Your task to perform on an android device: Check the weather Image 0: 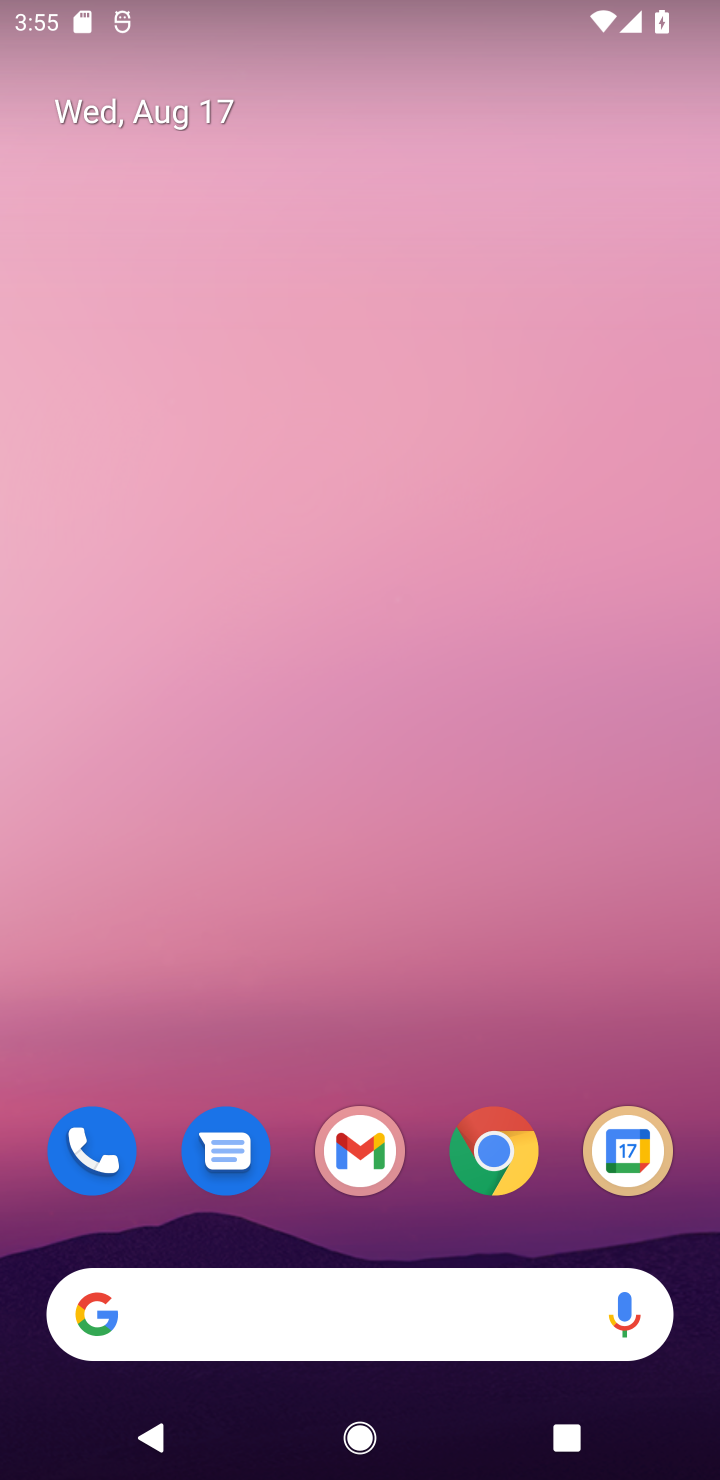
Step 0: click (391, 1337)
Your task to perform on an android device: Check the weather Image 1: 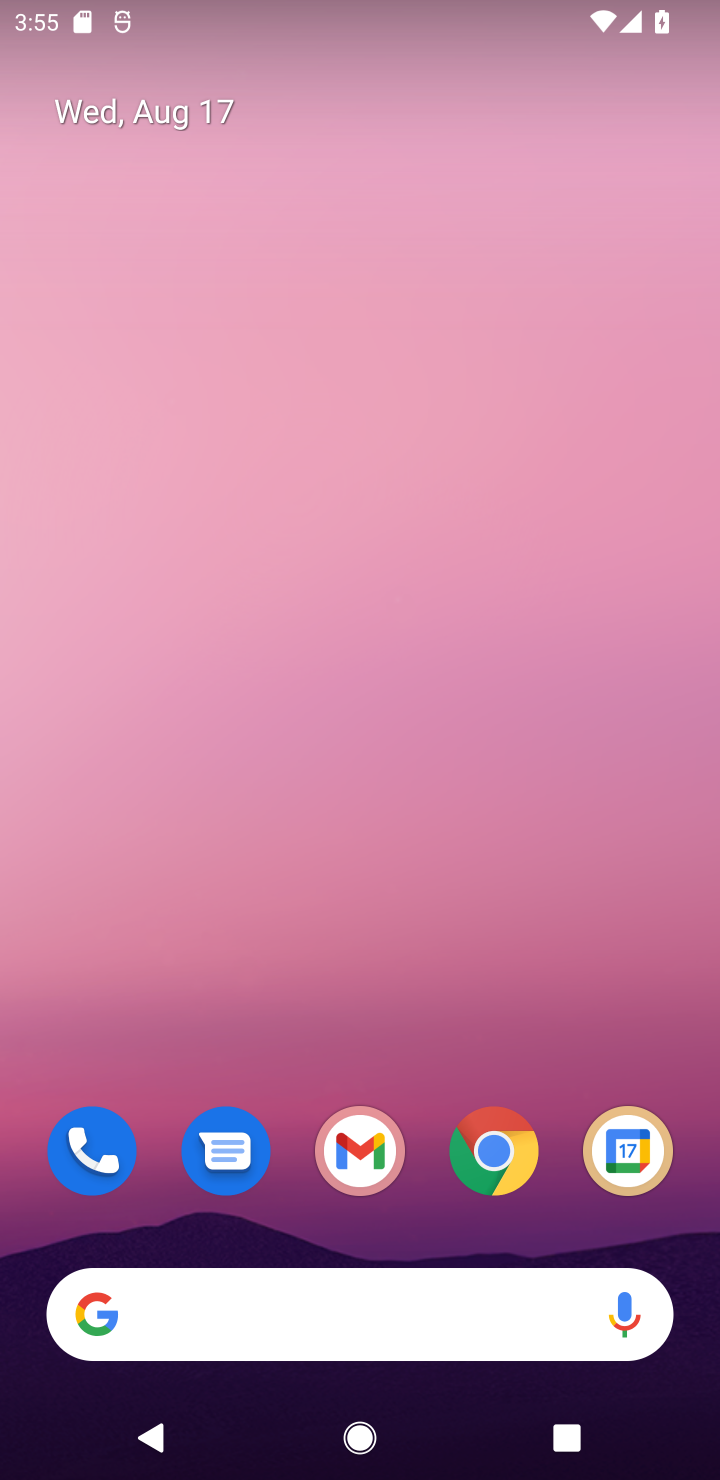
Step 1: click (302, 1323)
Your task to perform on an android device: Check the weather Image 2: 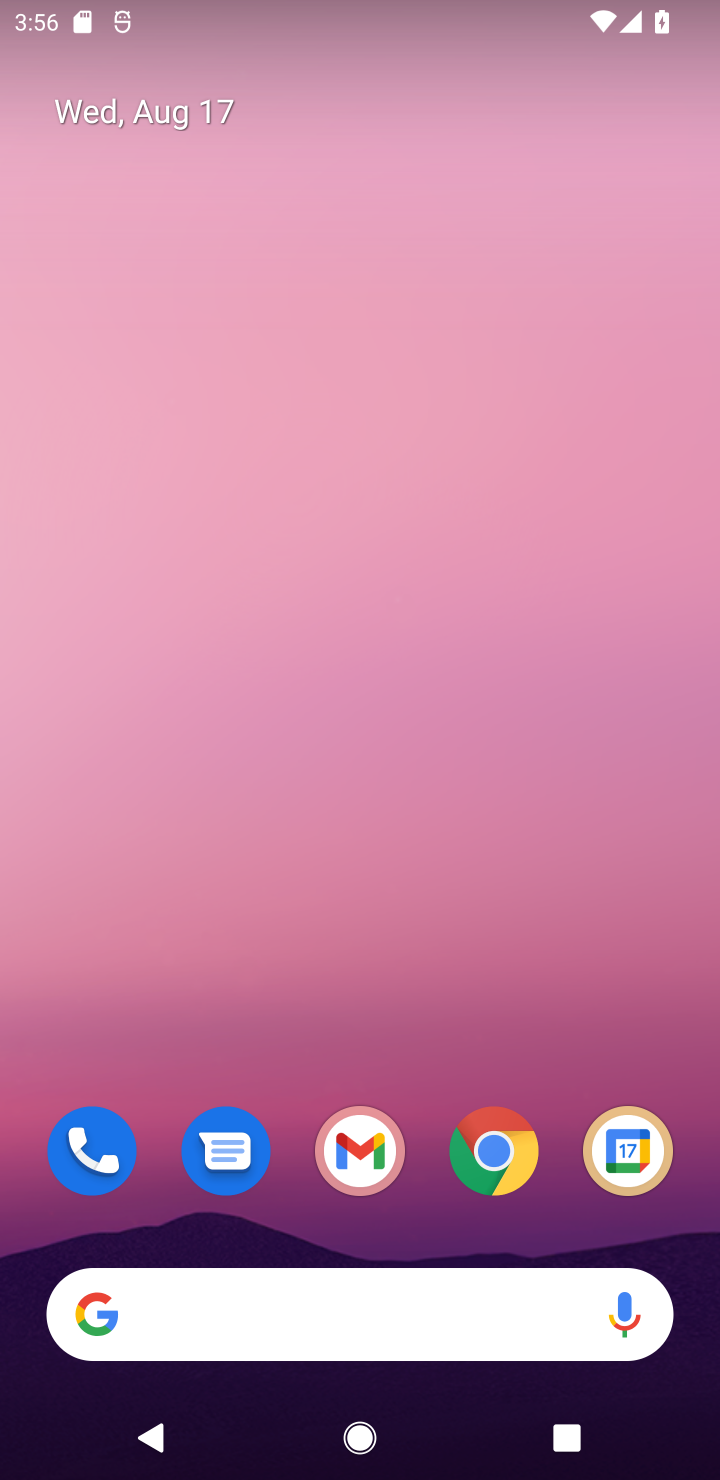
Step 2: click (302, 1323)
Your task to perform on an android device: Check the weather Image 3: 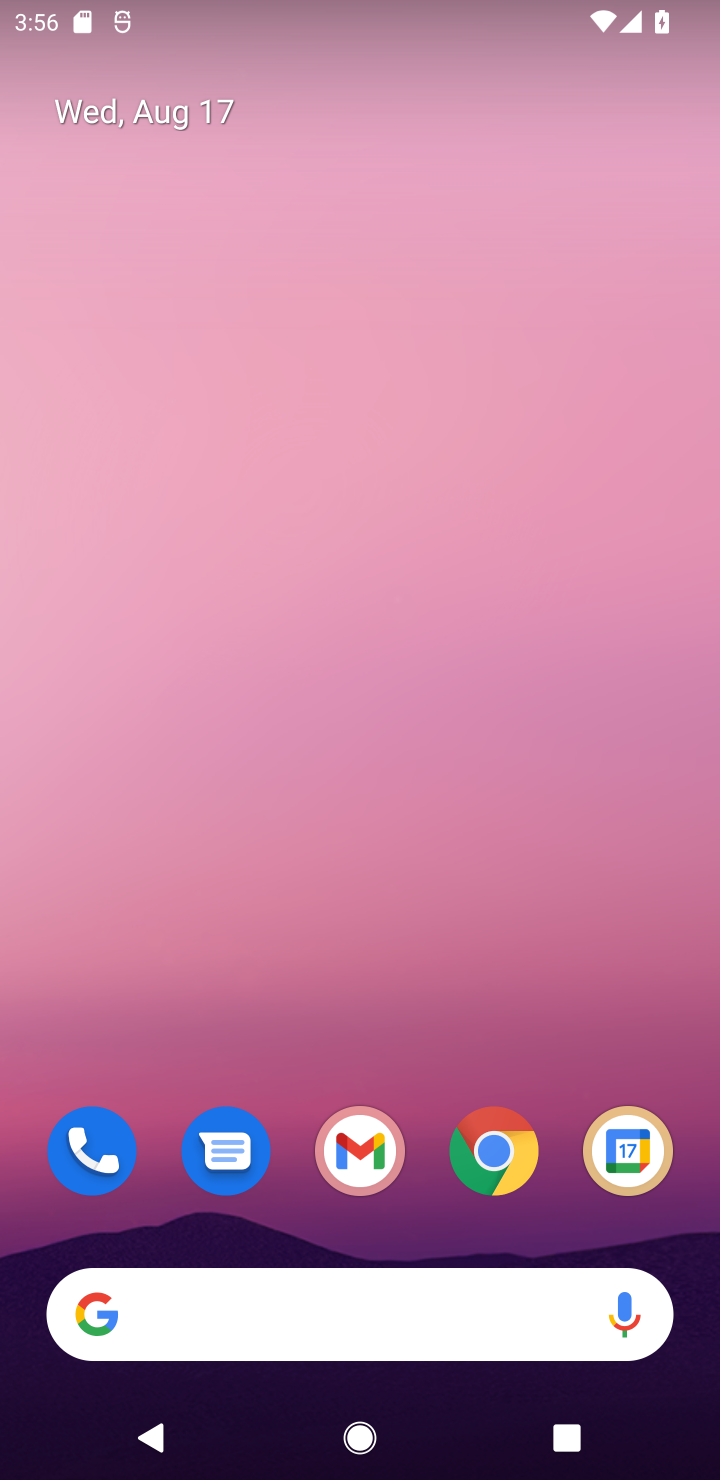
Step 3: click (302, 1323)
Your task to perform on an android device: Check the weather Image 4: 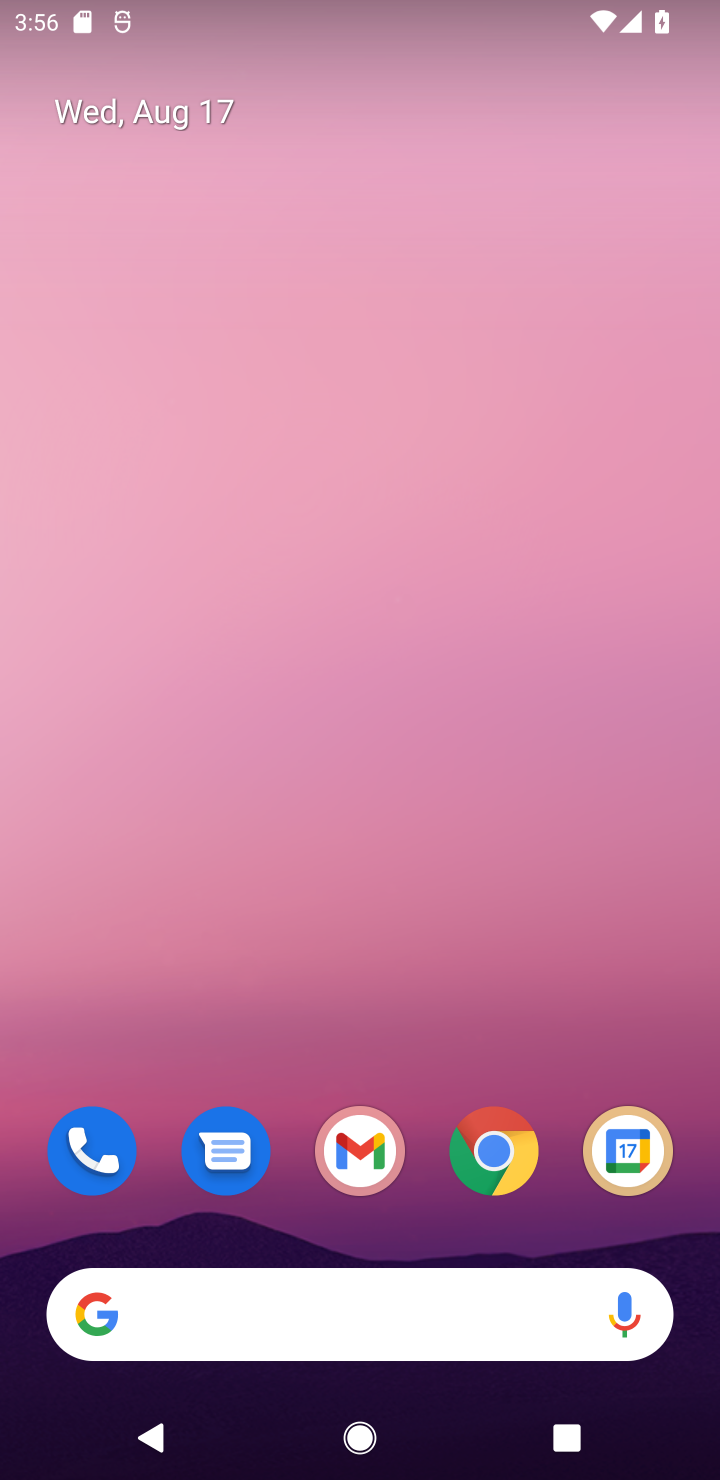
Step 4: task complete